Your task to perform on an android device: Go to ESPN.com Image 0: 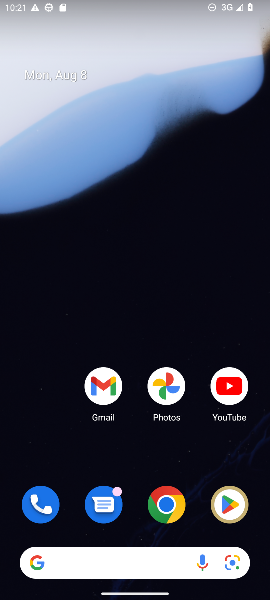
Step 0: click (172, 499)
Your task to perform on an android device: Go to ESPN.com Image 1: 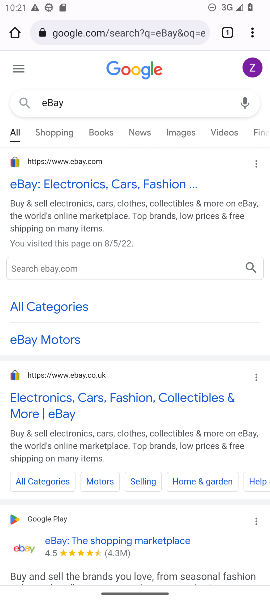
Step 1: click (122, 26)
Your task to perform on an android device: Go to ESPN.com Image 2: 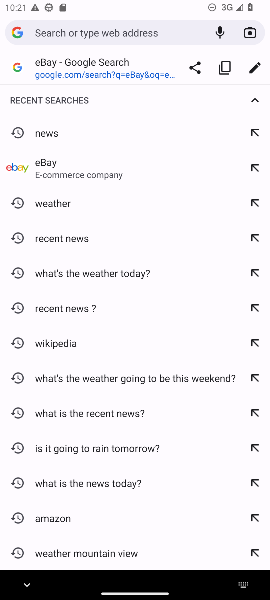
Step 2: type "ESPN.com"
Your task to perform on an android device: Go to ESPN.com Image 3: 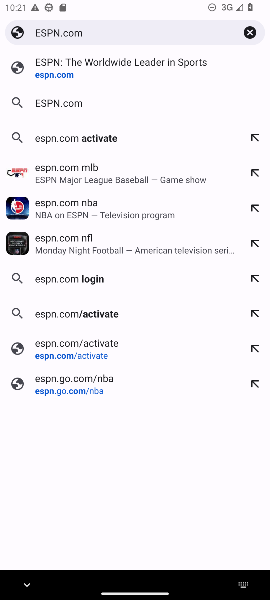
Step 3: click (105, 64)
Your task to perform on an android device: Go to ESPN.com Image 4: 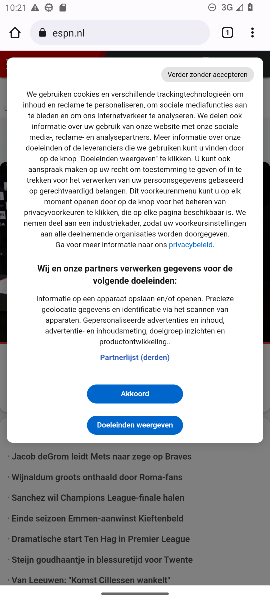
Step 4: task complete